Your task to perform on an android device: change the clock style Image 0: 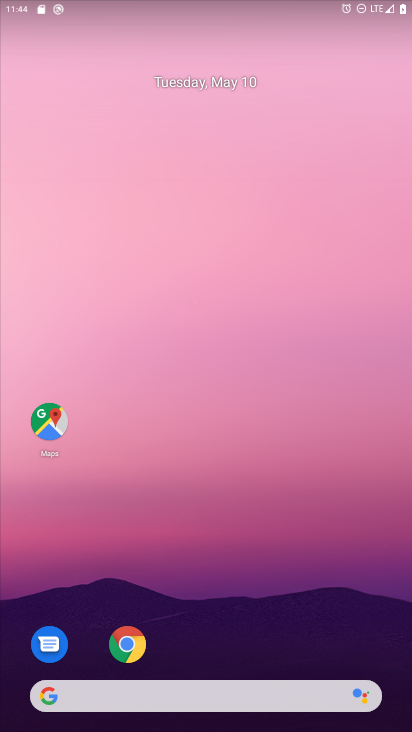
Step 0: drag from (211, 609) to (226, 231)
Your task to perform on an android device: change the clock style Image 1: 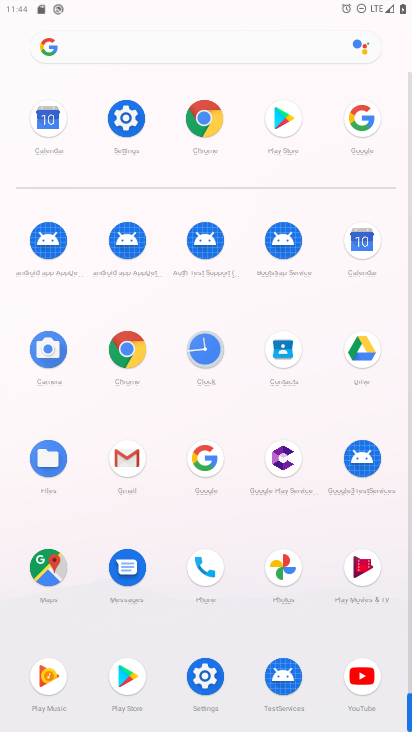
Step 1: click (207, 360)
Your task to perform on an android device: change the clock style Image 2: 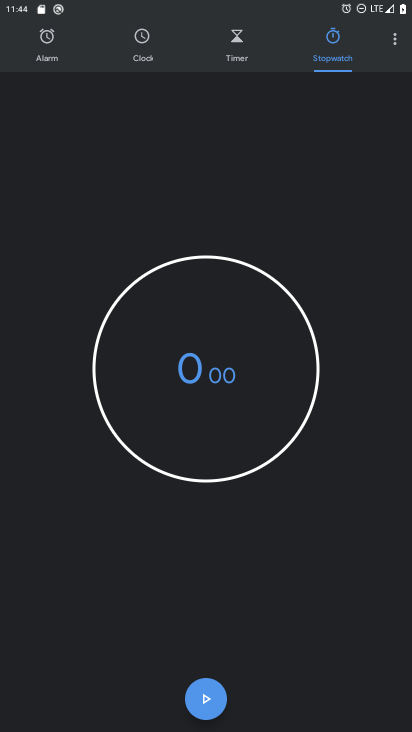
Step 2: click (395, 45)
Your task to perform on an android device: change the clock style Image 3: 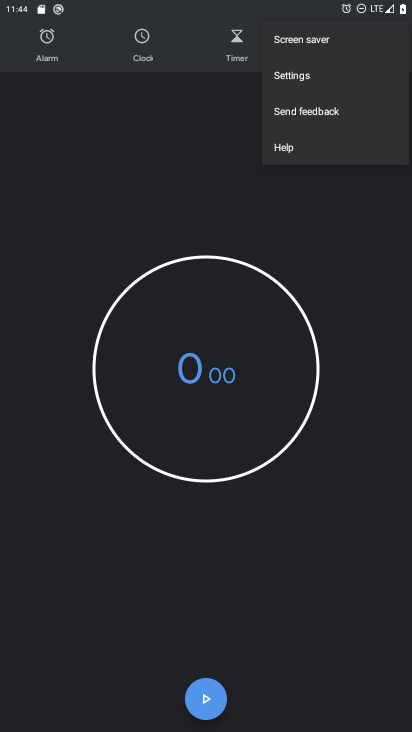
Step 3: click (307, 74)
Your task to perform on an android device: change the clock style Image 4: 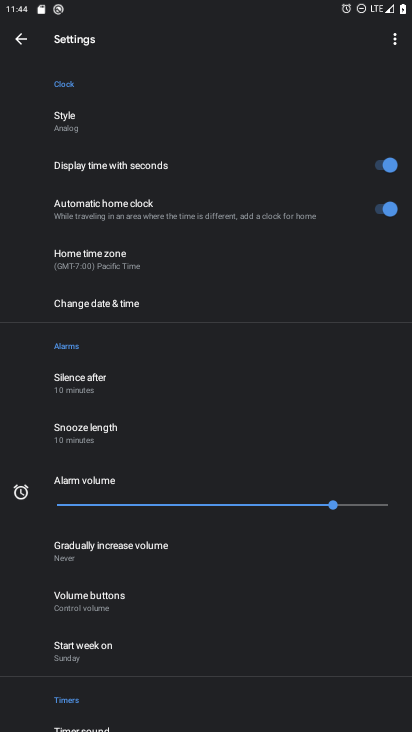
Step 4: click (195, 126)
Your task to perform on an android device: change the clock style Image 5: 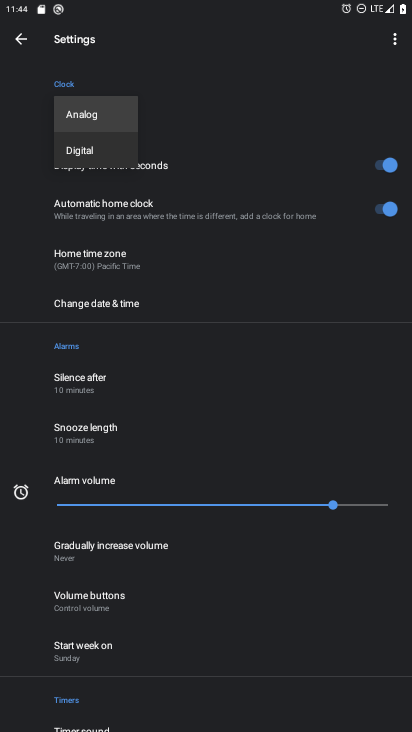
Step 5: click (105, 147)
Your task to perform on an android device: change the clock style Image 6: 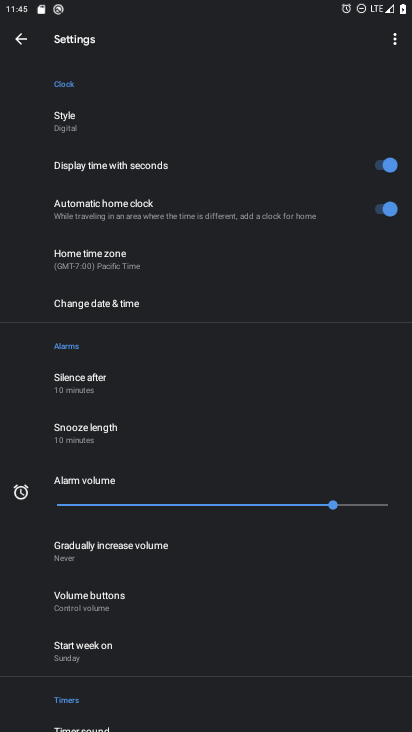
Step 6: task complete